Your task to perform on an android device: Go to sound settings Image 0: 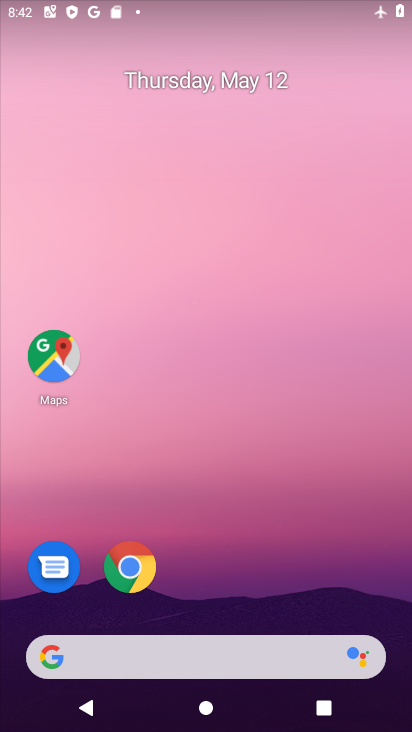
Step 0: drag from (242, 649) to (242, 235)
Your task to perform on an android device: Go to sound settings Image 1: 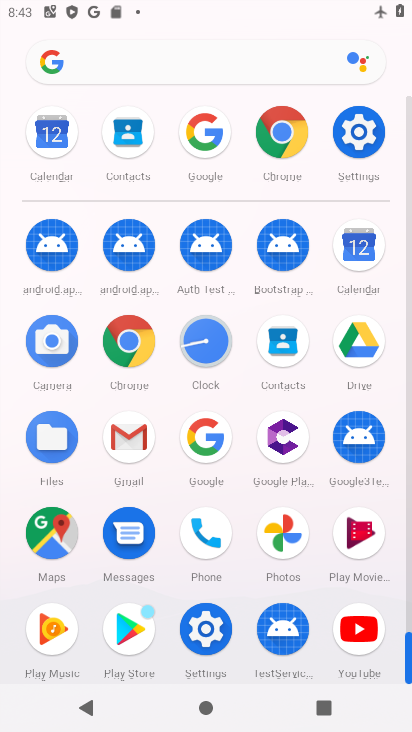
Step 1: click (359, 148)
Your task to perform on an android device: Go to sound settings Image 2: 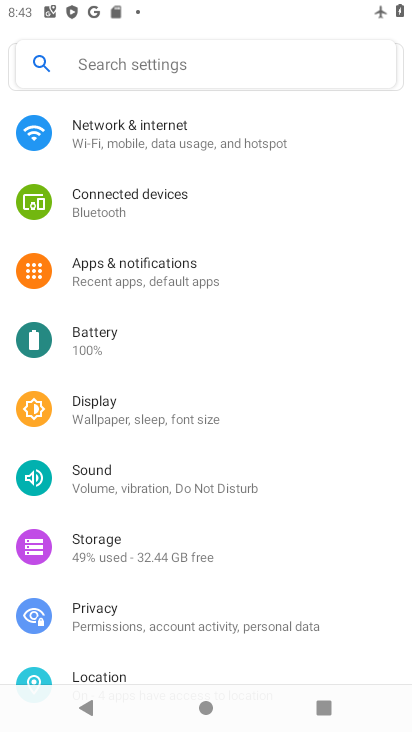
Step 2: click (177, 475)
Your task to perform on an android device: Go to sound settings Image 3: 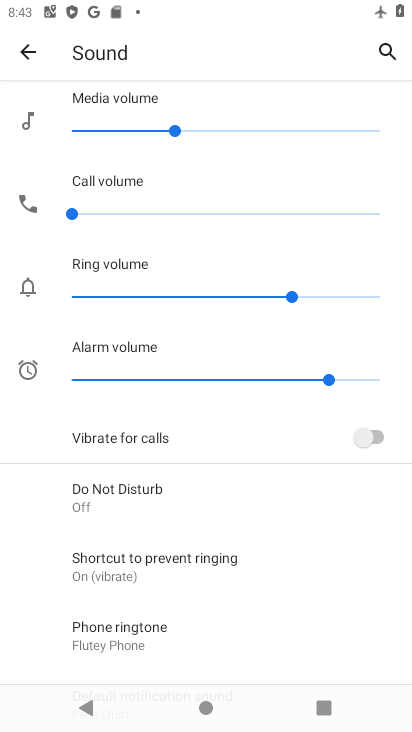
Step 3: task complete